Your task to perform on an android device: Show me popular videos on Youtube Image 0: 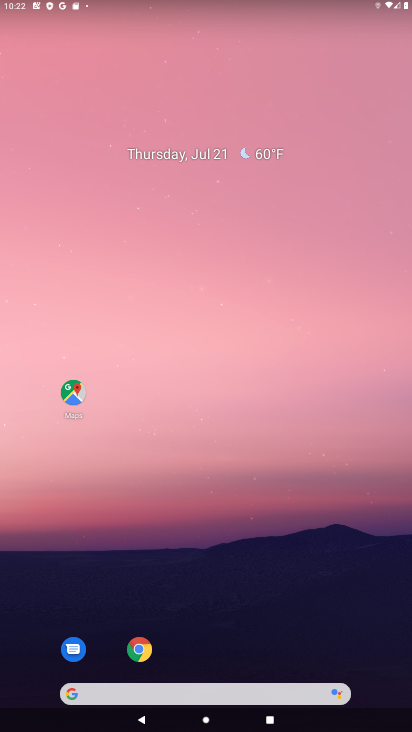
Step 0: drag from (197, 698) to (275, 200)
Your task to perform on an android device: Show me popular videos on Youtube Image 1: 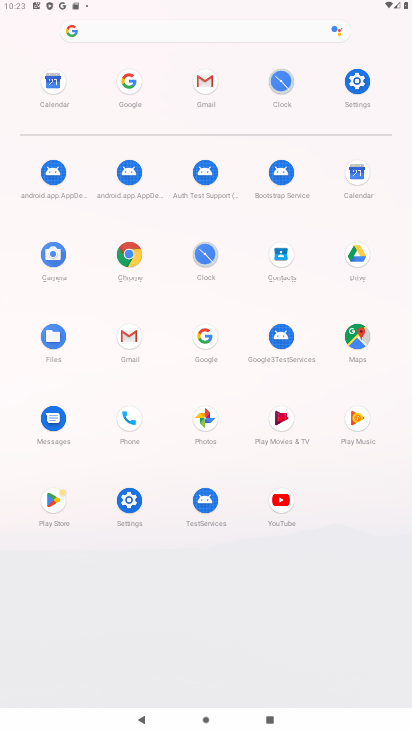
Step 1: click (282, 499)
Your task to perform on an android device: Show me popular videos on Youtube Image 2: 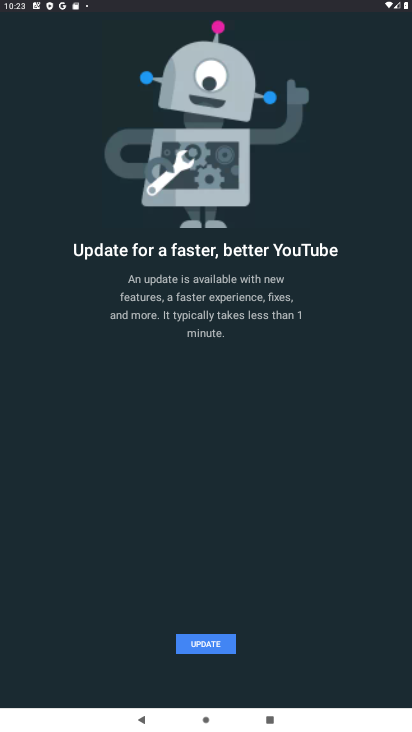
Step 2: click (207, 644)
Your task to perform on an android device: Show me popular videos on Youtube Image 3: 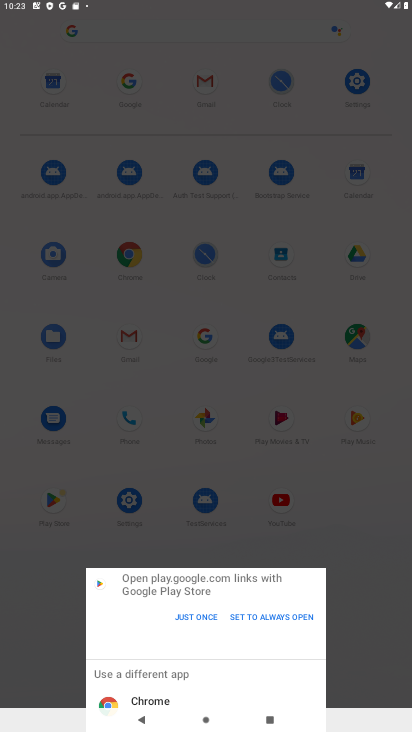
Step 3: click (199, 616)
Your task to perform on an android device: Show me popular videos on Youtube Image 4: 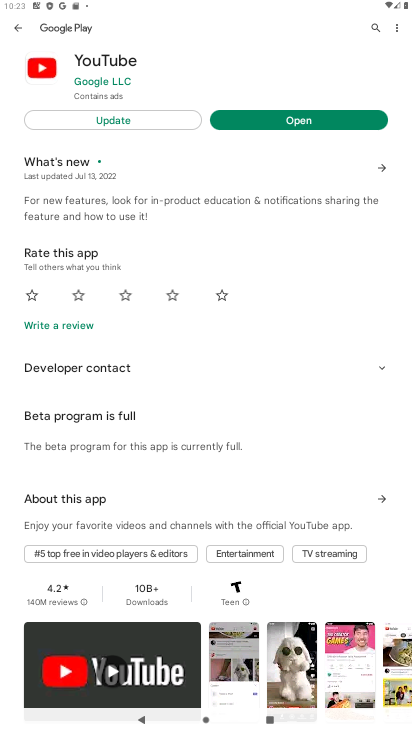
Step 4: click (129, 121)
Your task to perform on an android device: Show me popular videos on Youtube Image 5: 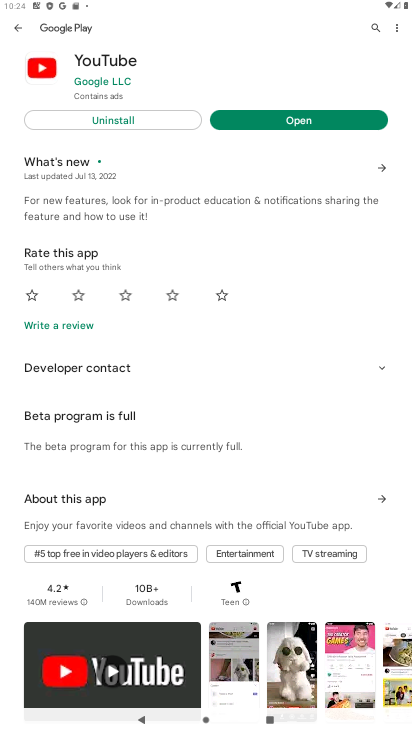
Step 5: click (320, 124)
Your task to perform on an android device: Show me popular videos on Youtube Image 6: 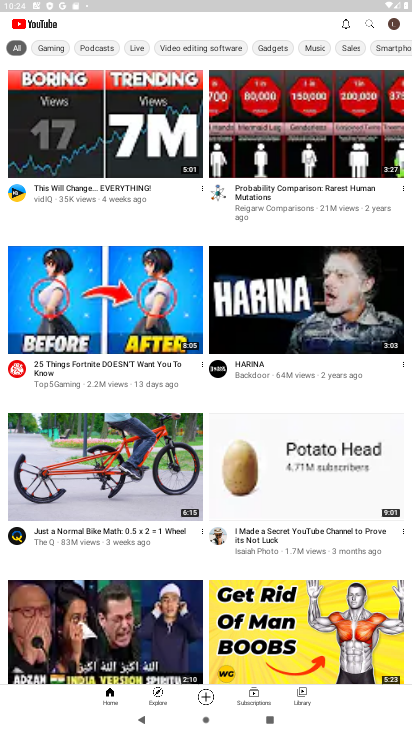
Step 6: click (371, 23)
Your task to perform on an android device: Show me popular videos on Youtube Image 7: 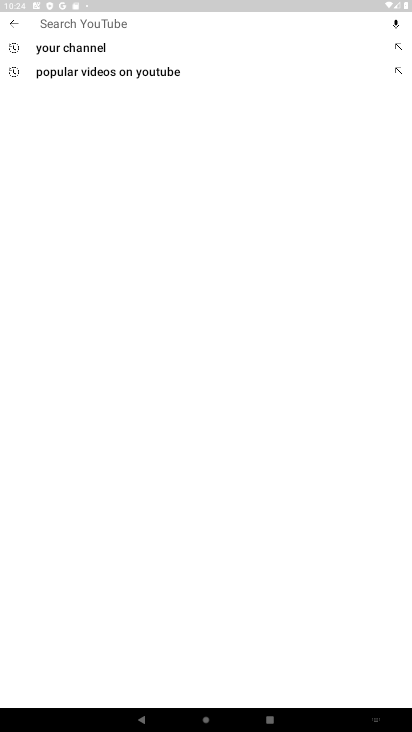
Step 7: click (153, 72)
Your task to perform on an android device: Show me popular videos on Youtube Image 8: 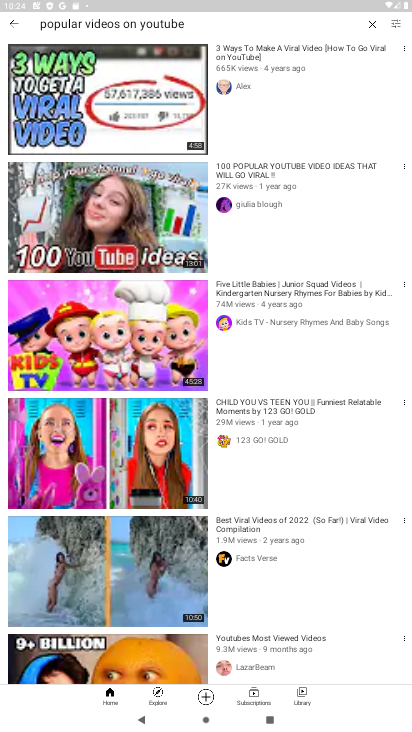
Step 8: task complete